Your task to perform on an android device: search for starred emails in the gmail app Image 0: 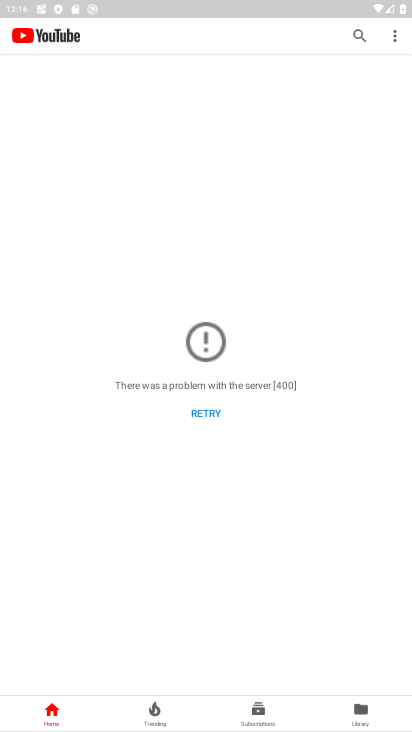
Step 0: press home button
Your task to perform on an android device: search for starred emails in the gmail app Image 1: 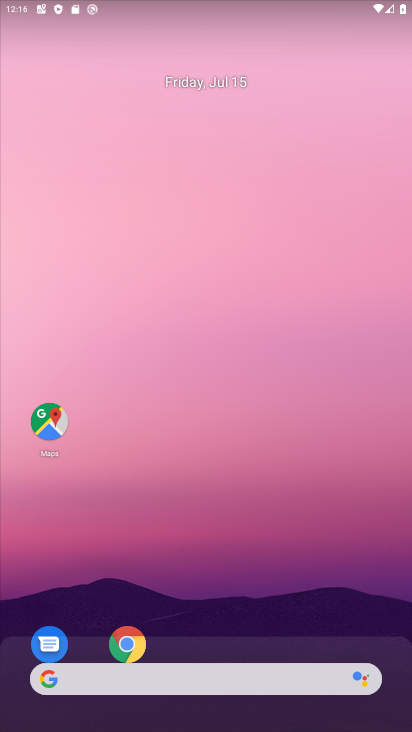
Step 1: drag from (29, 601) to (241, 210)
Your task to perform on an android device: search for starred emails in the gmail app Image 2: 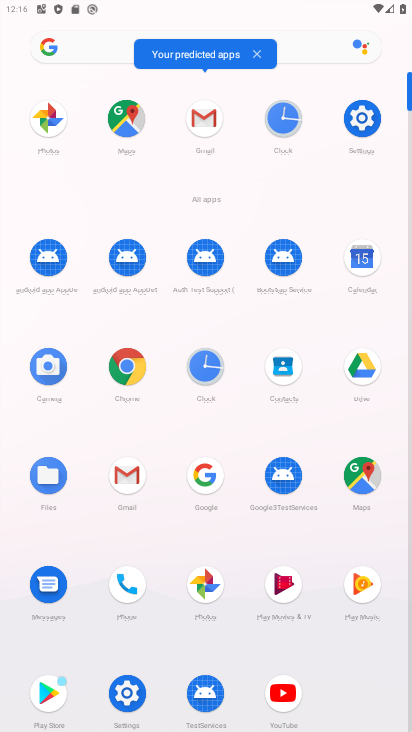
Step 2: click (209, 134)
Your task to perform on an android device: search for starred emails in the gmail app Image 3: 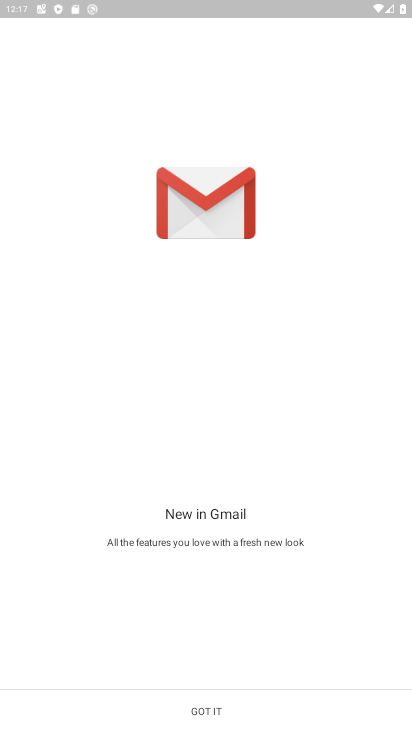
Step 3: click (208, 709)
Your task to perform on an android device: search for starred emails in the gmail app Image 4: 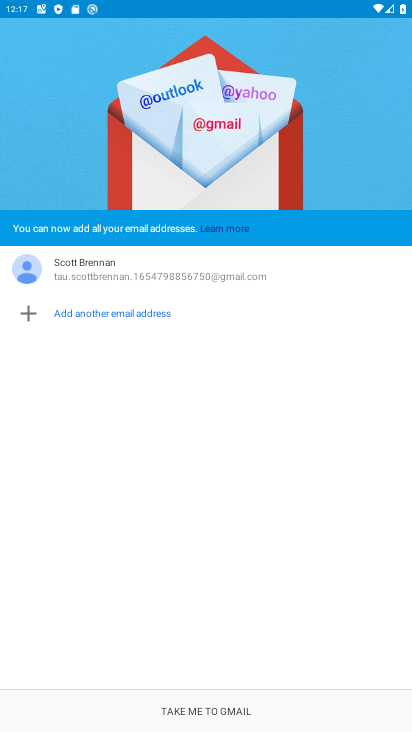
Step 4: click (208, 710)
Your task to perform on an android device: search for starred emails in the gmail app Image 5: 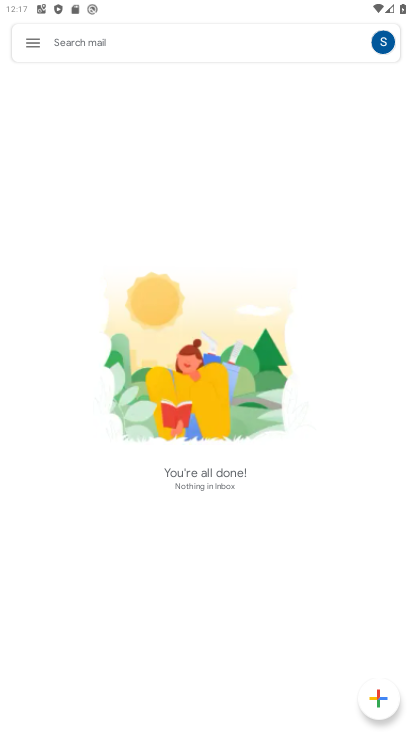
Step 5: click (31, 36)
Your task to perform on an android device: search for starred emails in the gmail app Image 6: 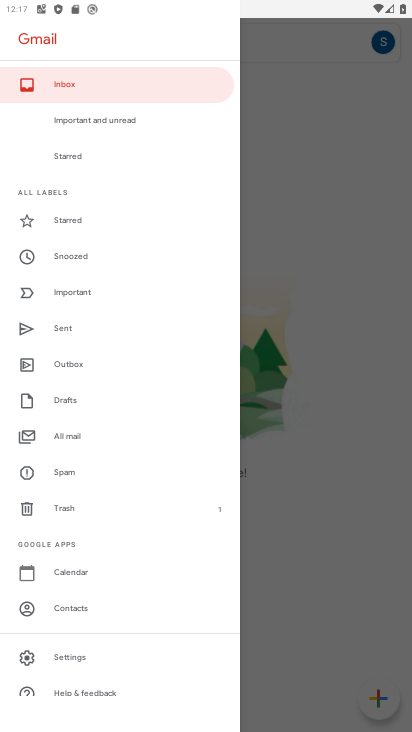
Step 6: click (115, 210)
Your task to perform on an android device: search for starred emails in the gmail app Image 7: 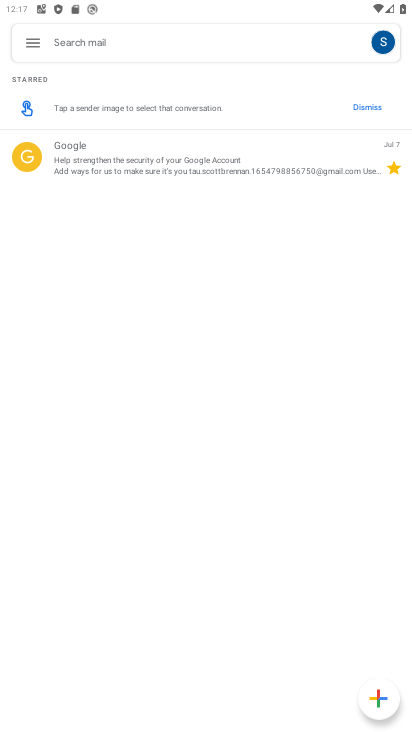
Step 7: task complete